Your task to perform on an android device: Open privacy settings Image 0: 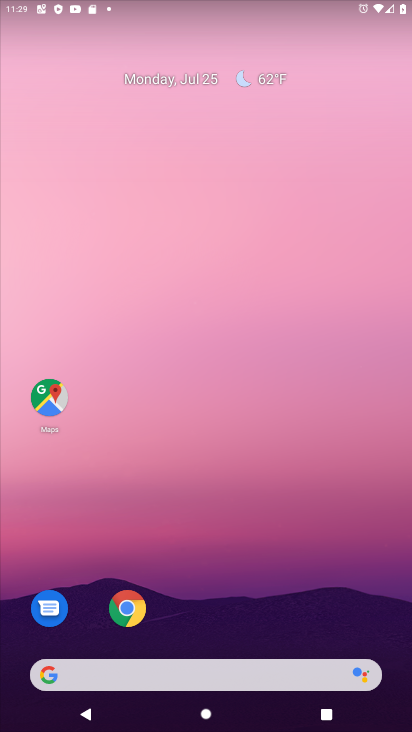
Step 0: drag from (215, 502) to (219, 193)
Your task to perform on an android device: Open privacy settings Image 1: 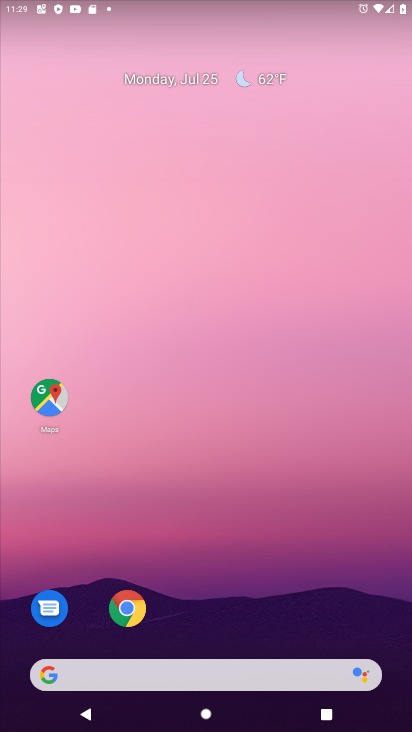
Step 1: drag from (236, 641) to (273, 15)
Your task to perform on an android device: Open privacy settings Image 2: 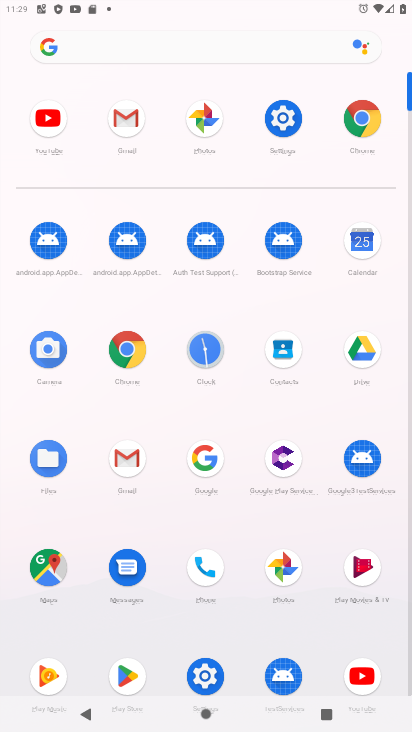
Step 2: click (208, 671)
Your task to perform on an android device: Open privacy settings Image 3: 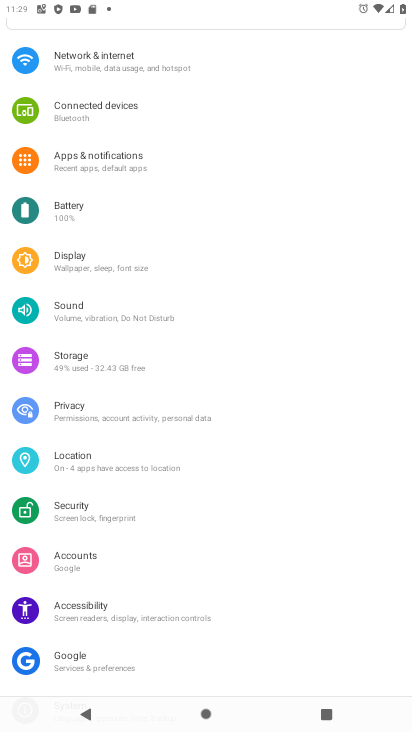
Step 3: click (116, 416)
Your task to perform on an android device: Open privacy settings Image 4: 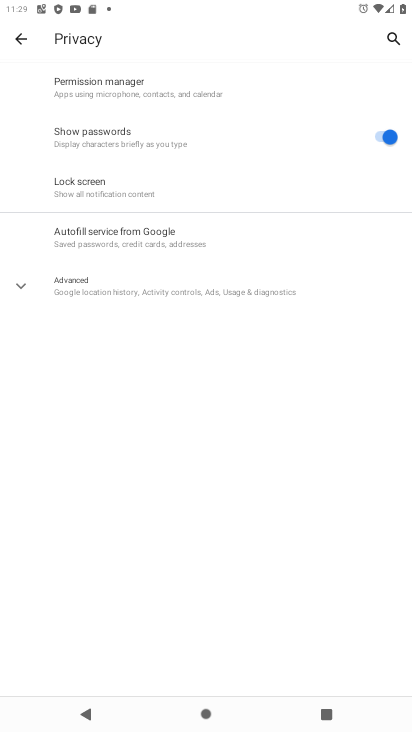
Step 4: task complete